Your task to perform on an android device: choose inbox layout in the gmail app Image 0: 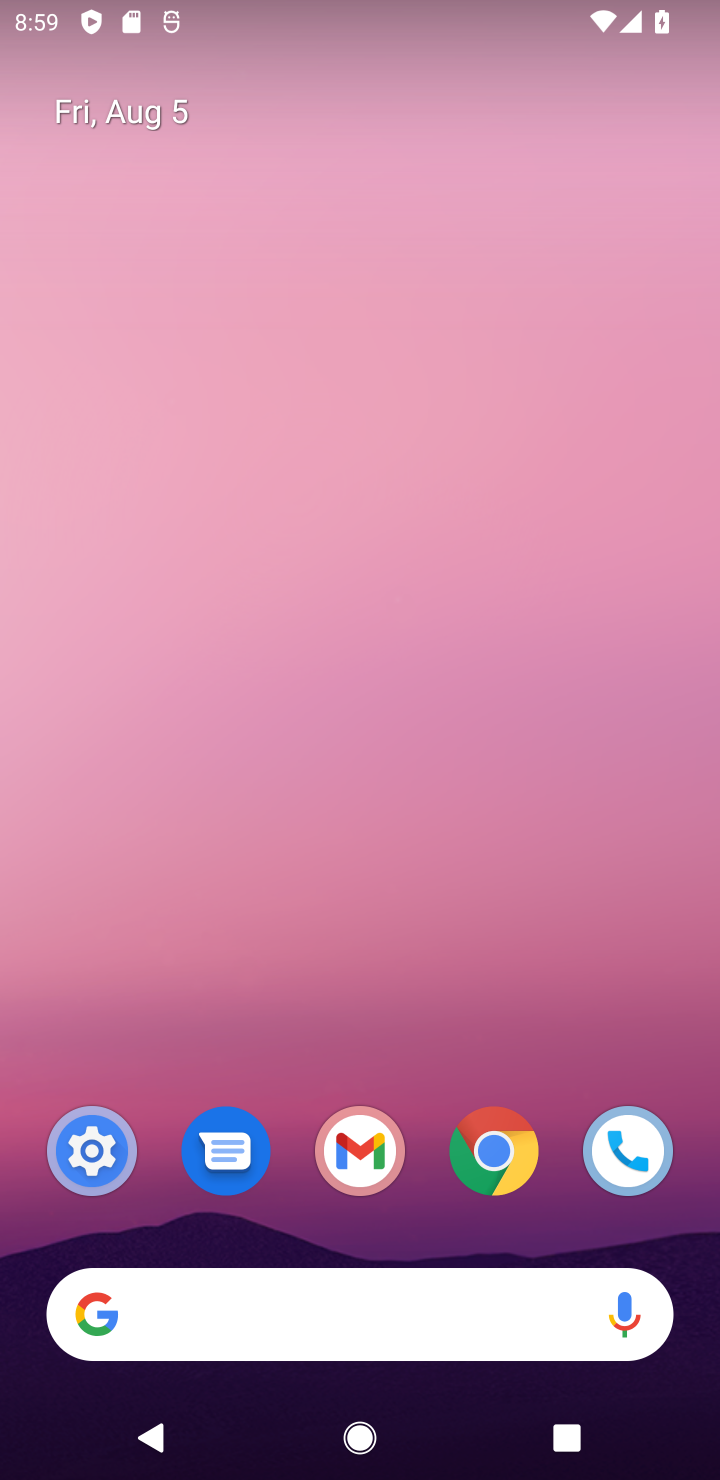
Step 0: click (324, 1143)
Your task to perform on an android device: choose inbox layout in the gmail app Image 1: 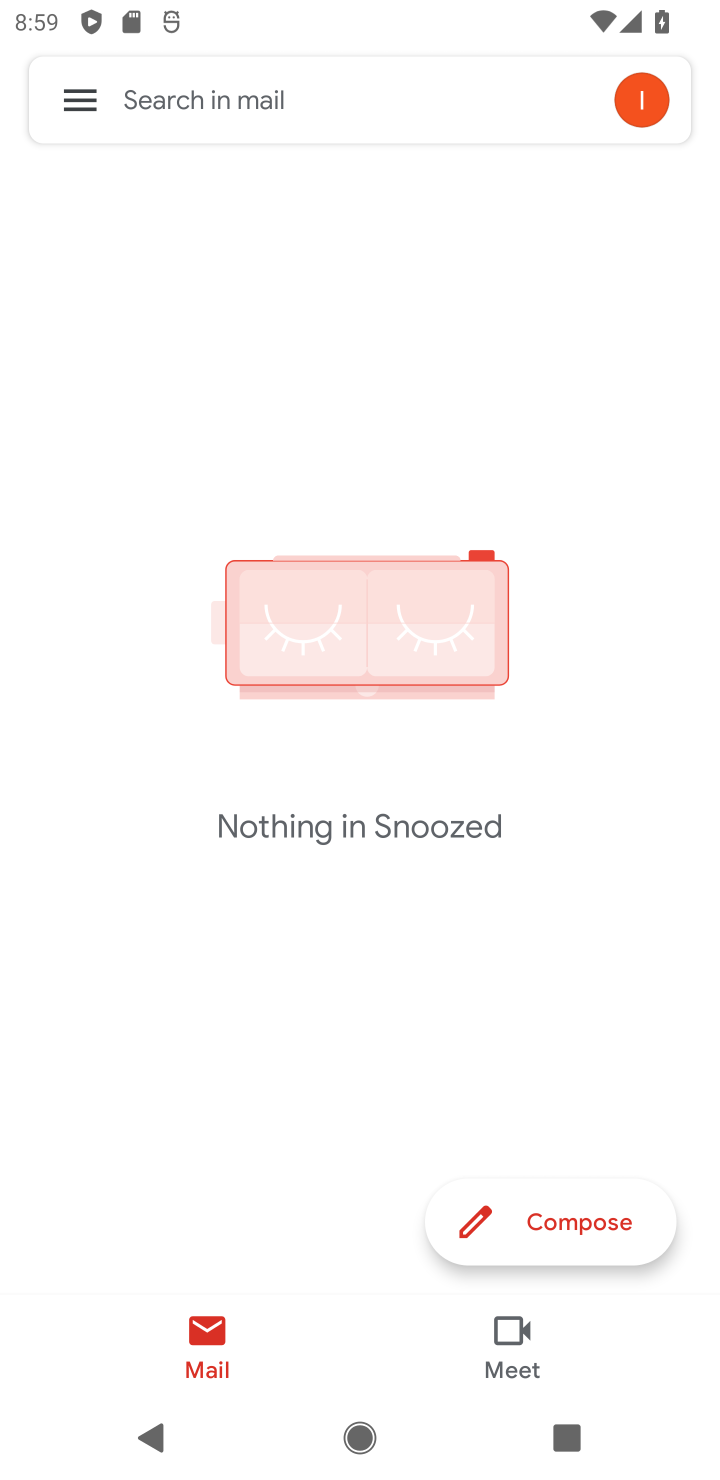
Step 1: click (100, 118)
Your task to perform on an android device: choose inbox layout in the gmail app Image 2: 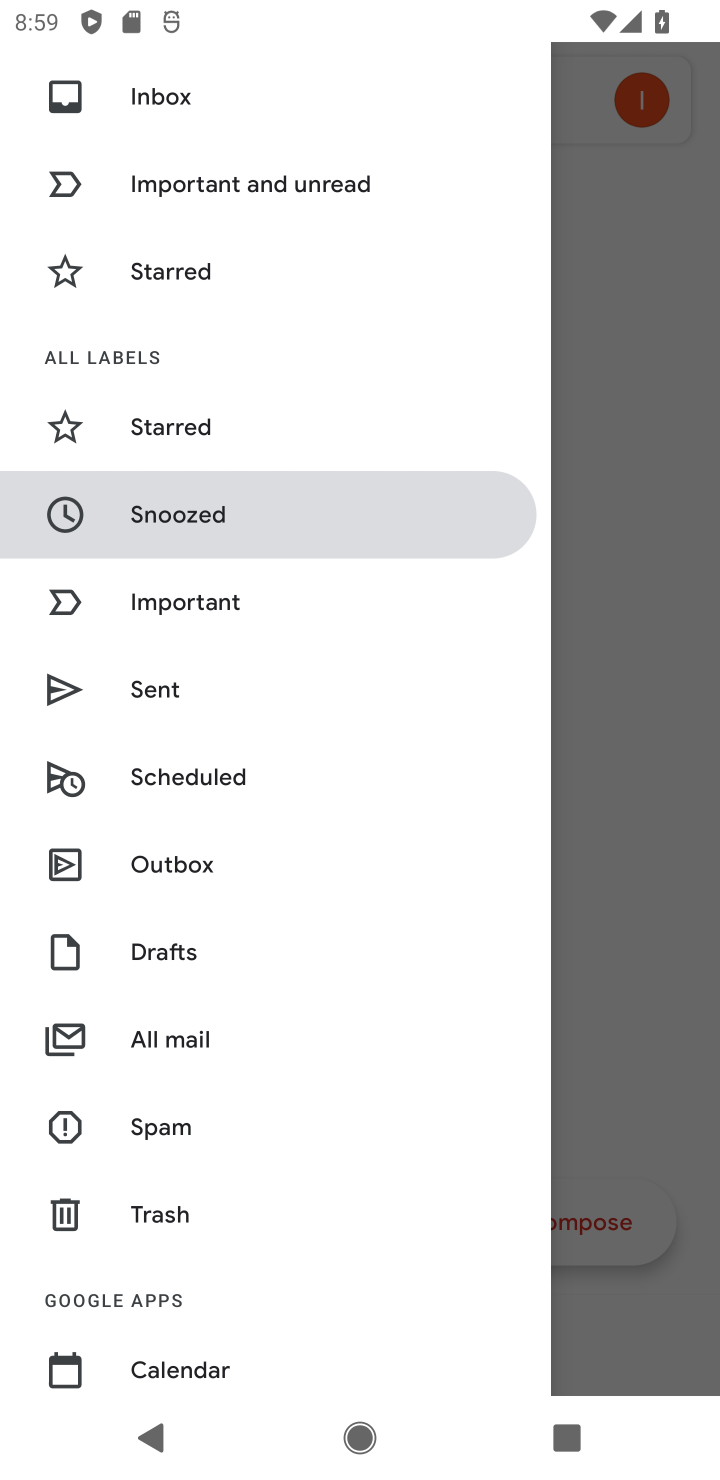
Step 2: drag from (222, 883) to (292, 550)
Your task to perform on an android device: choose inbox layout in the gmail app Image 3: 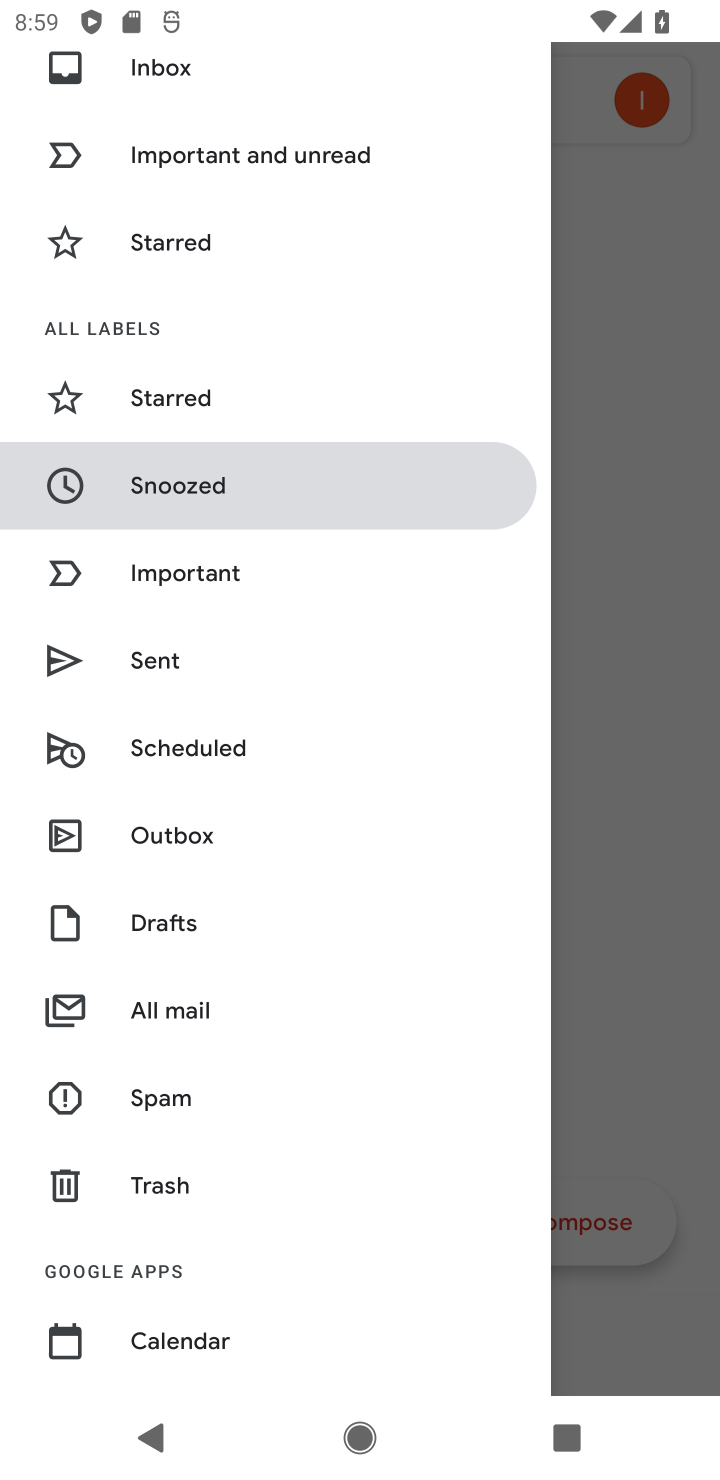
Step 3: drag from (233, 773) to (238, 480)
Your task to perform on an android device: choose inbox layout in the gmail app Image 4: 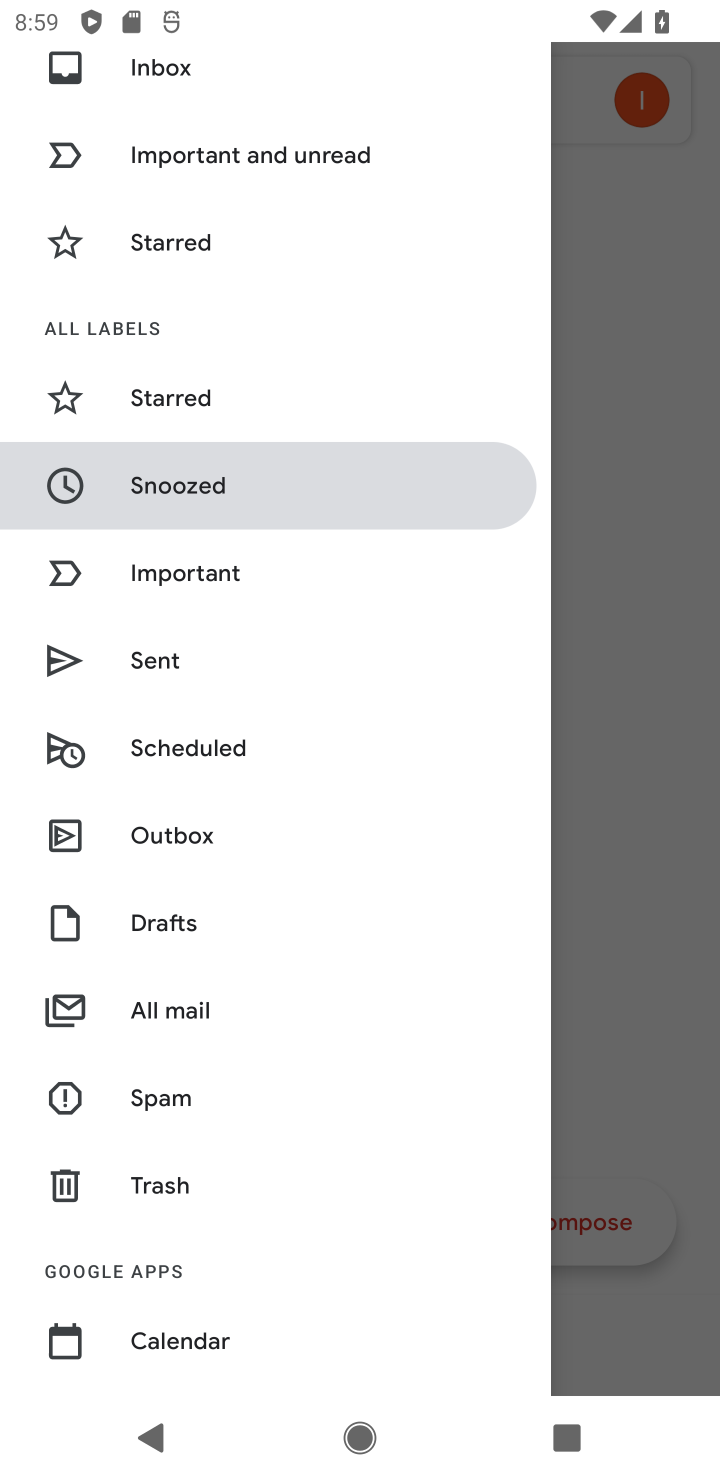
Step 4: drag from (339, 1062) to (308, 133)
Your task to perform on an android device: choose inbox layout in the gmail app Image 5: 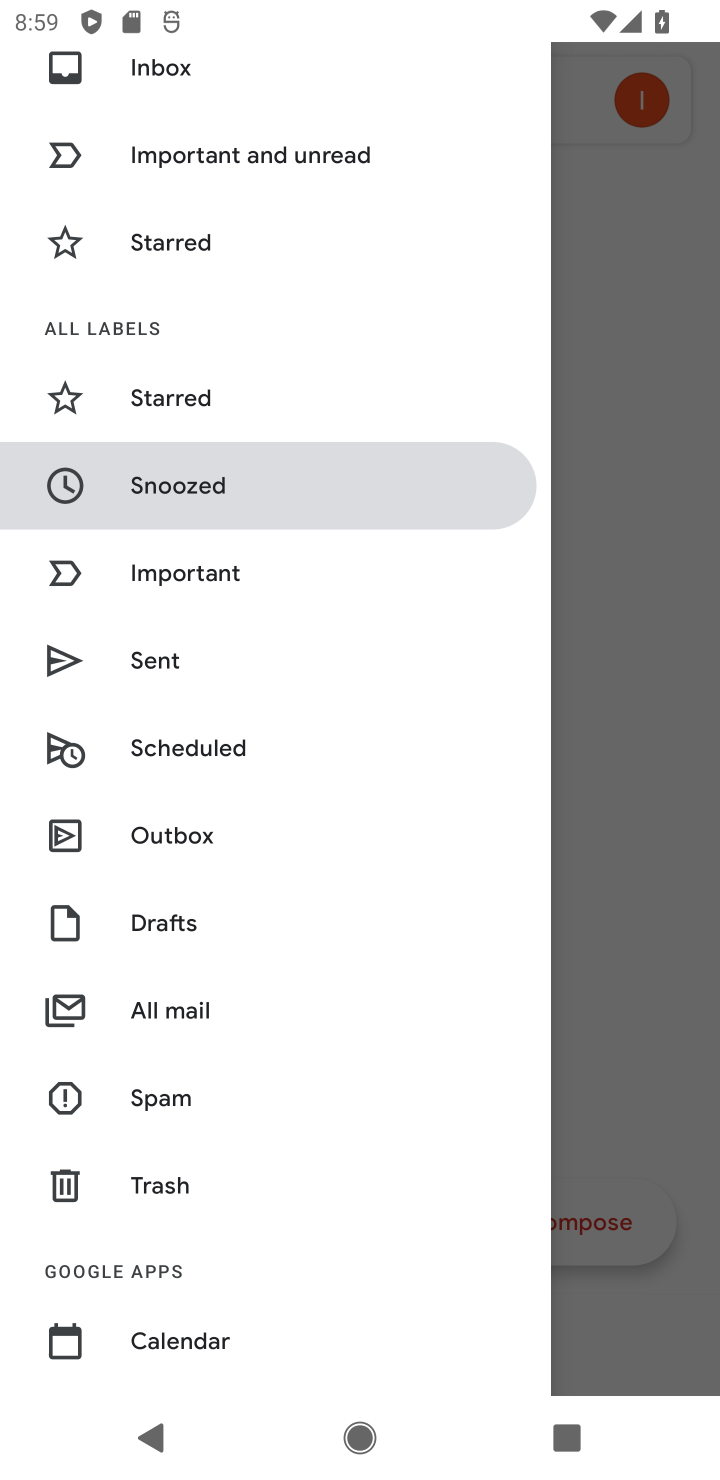
Step 5: drag from (167, 1230) to (186, 311)
Your task to perform on an android device: choose inbox layout in the gmail app Image 6: 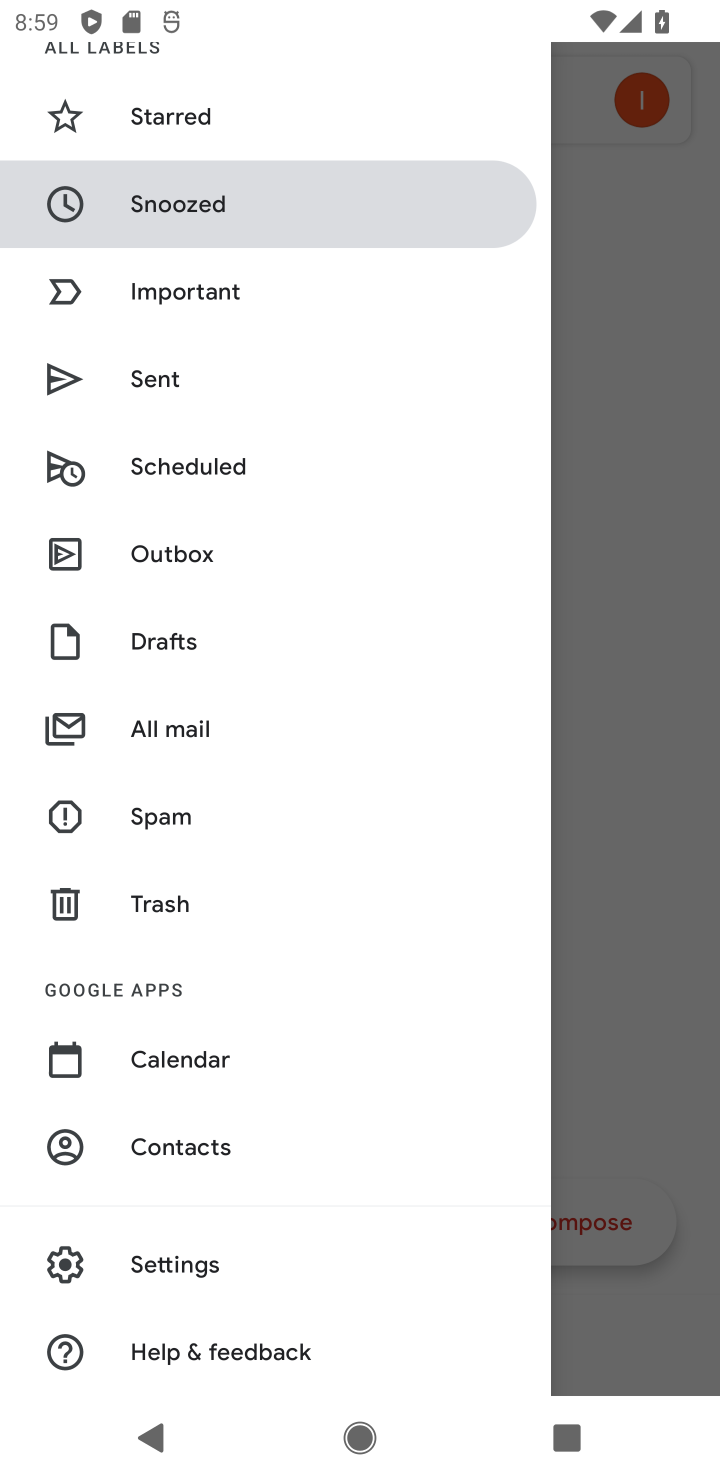
Step 6: click (163, 1259)
Your task to perform on an android device: choose inbox layout in the gmail app Image 7: 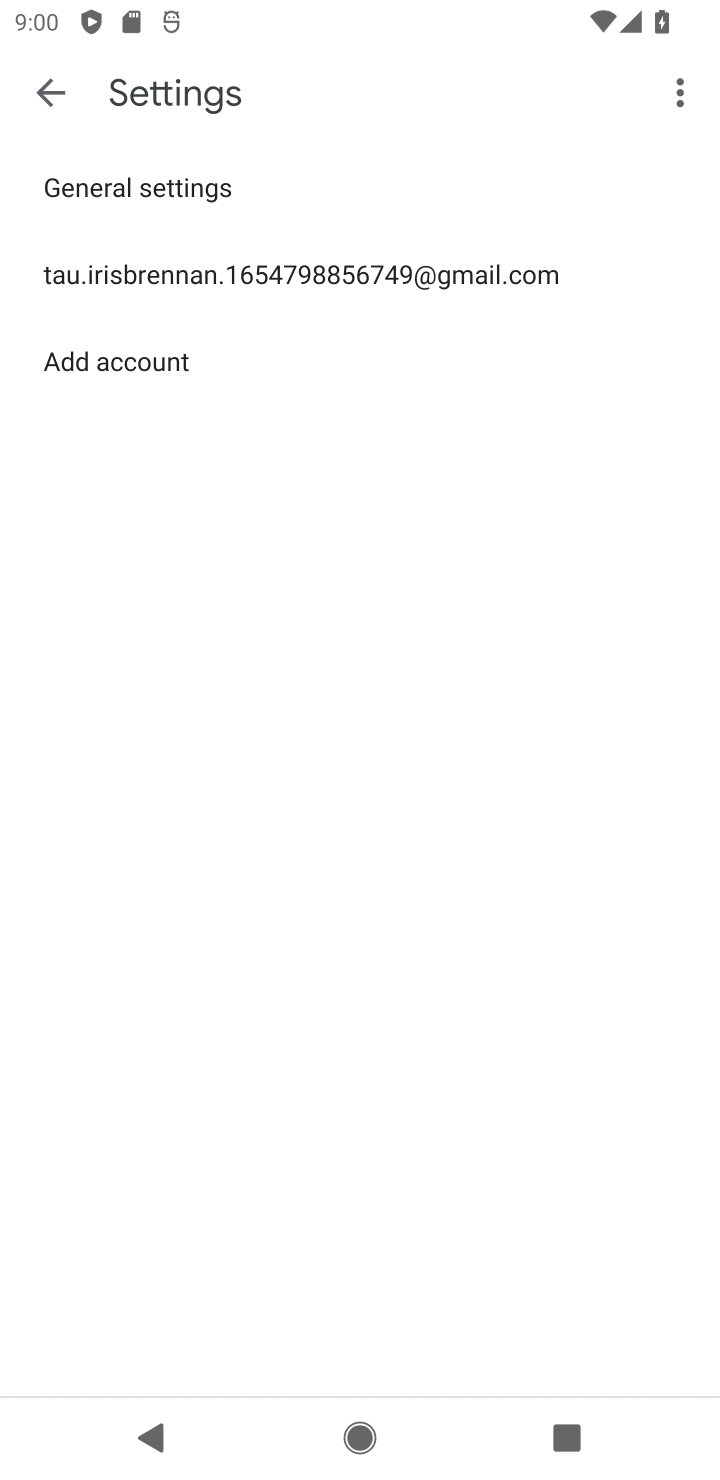
Step 7: click (334, 270)
Your task to perform on an android device: choose inbox layout in the gmail app Image 8: 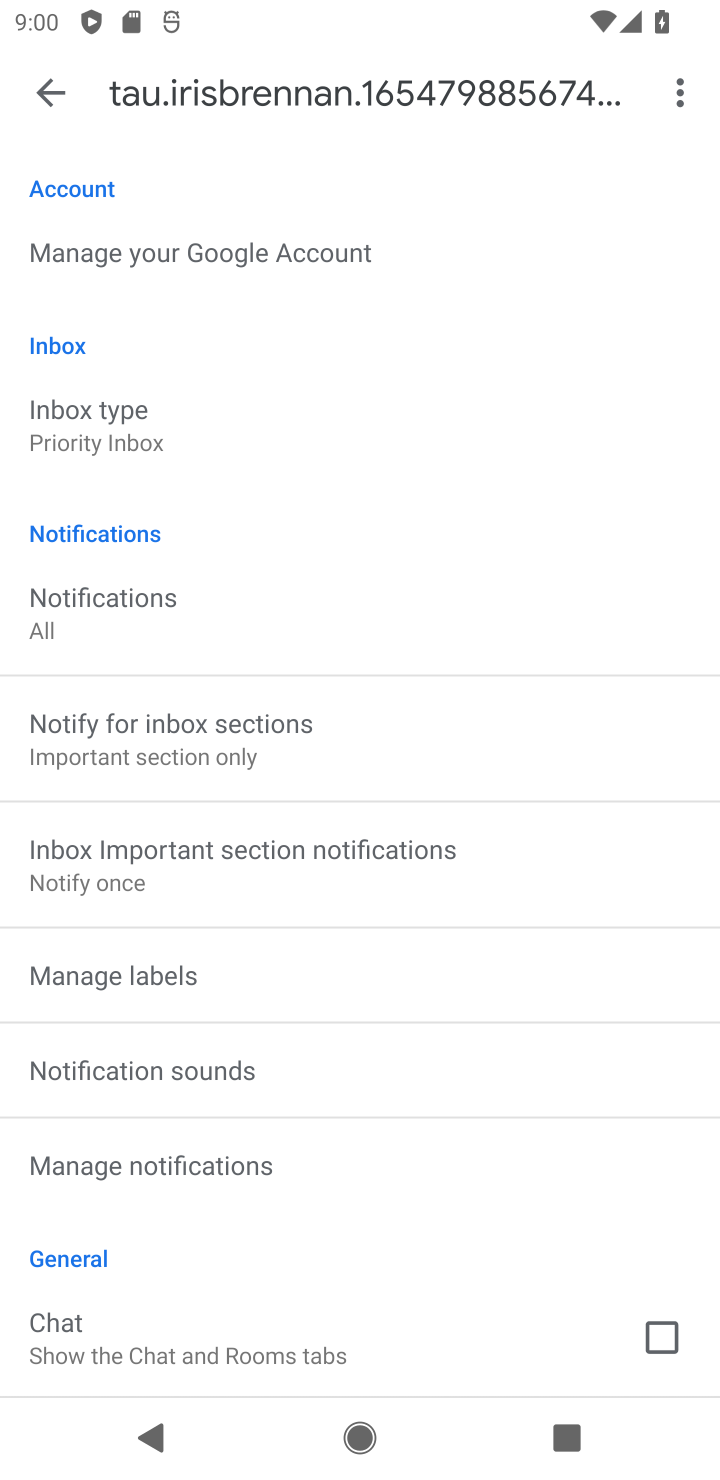
Step 8: click (100, 397)
Your task to perform on an android device: choose inbox layout in the gmail app Image 9: 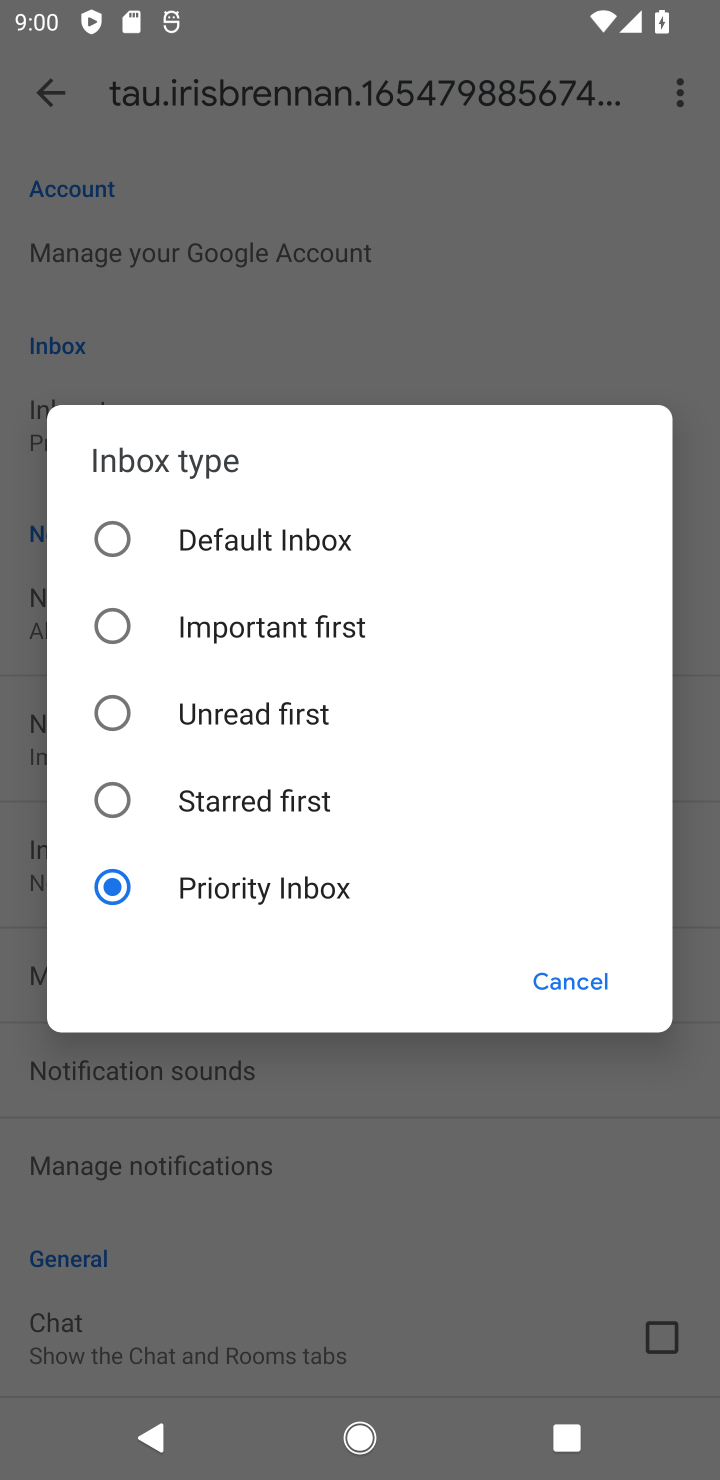
Step 9: click (105, 527)
Your task to perform on an android device: choose inbox layout in the gmail app Image 10: 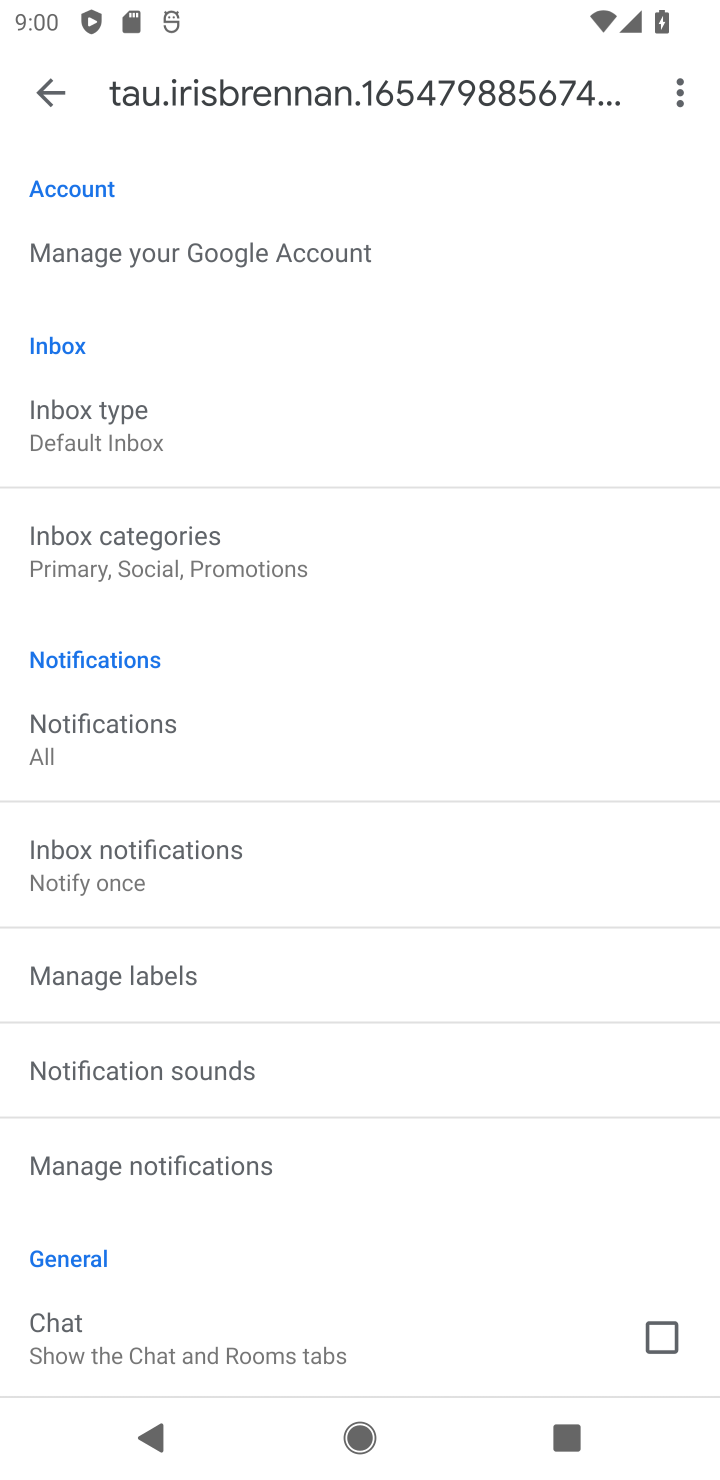
Step 10: task complete